Your task to perform on an android device: change text size in settings app Image 0: 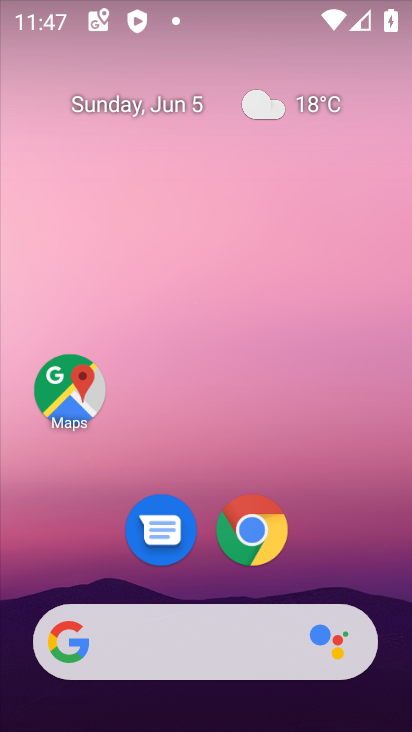
Step 0: drag from (330, 151) to (321, 4)
Your task to perform on an android device: change text size in settings app Image 1: 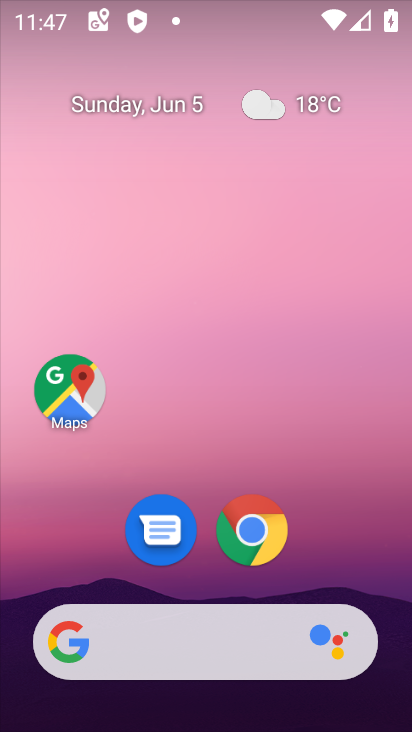
Step 1: drag from (334, 555) to (113, 6)
Your task to perform on an android device: change text size in settings app Image 2: 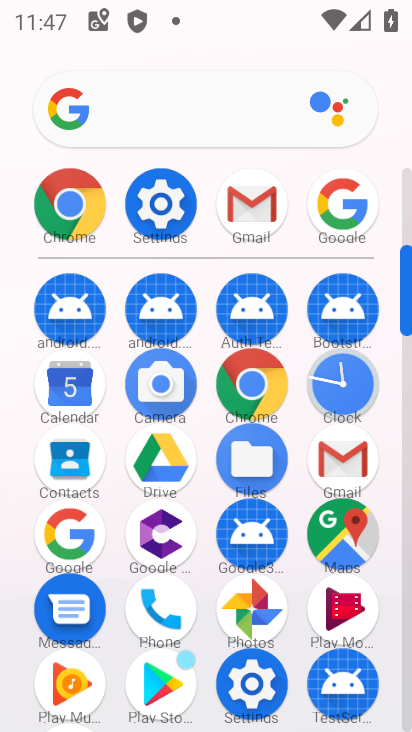
Step 2: click (169, 202)
Your task to perform on an android device: change text size in settings app Image 3: 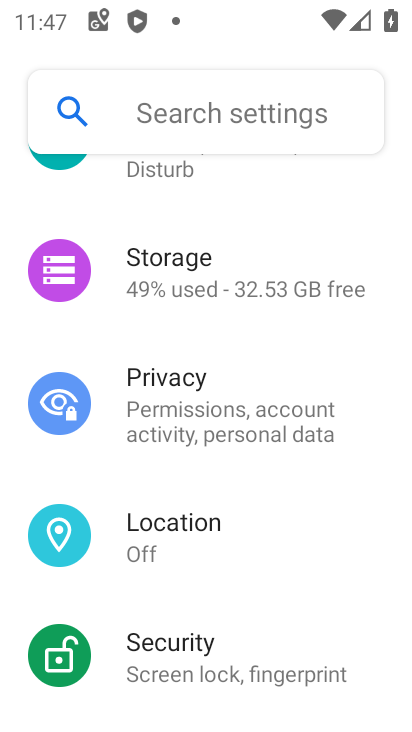
Step 3: drag from (261, 266) to (306, 646)
Your task to perform on an android device: change text size in settings app Image 4: 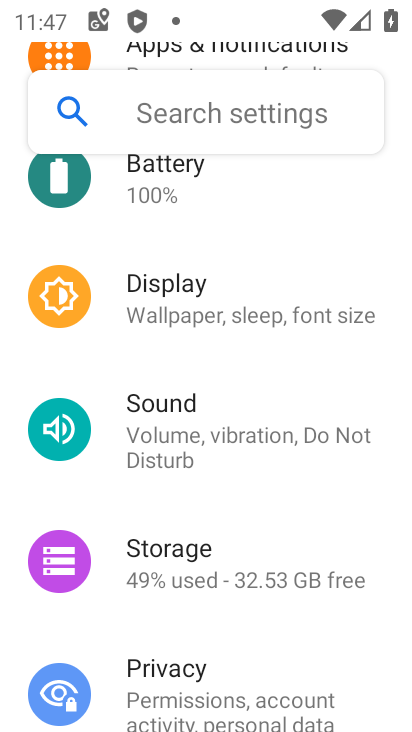
Step 4: drag from (318, 269) to (356, 654)
Your task to perform on an android device: change text size in settings app Image 5: 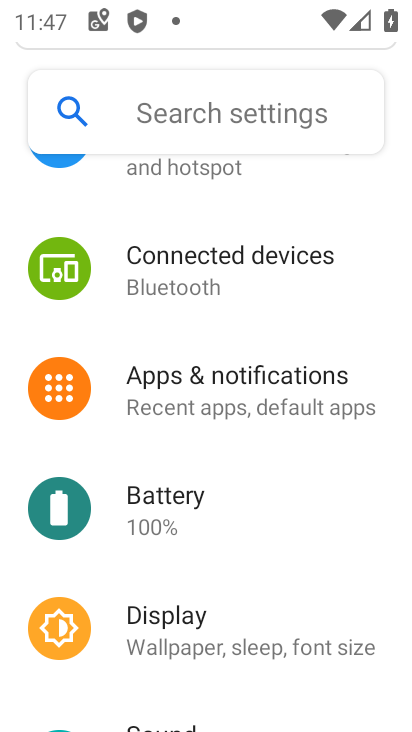
Step 5: click (296, 633)
Your task to perform on an android device: change text size in settings app Image 6: 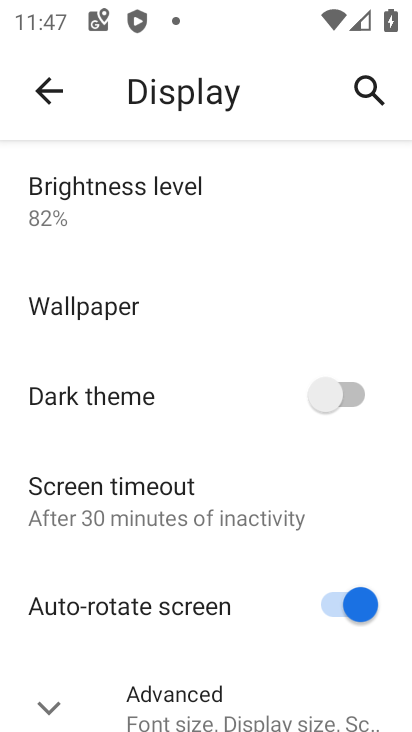
Step 6: drag from (262, 585) to (257, 189)
Your task to perform on an android device: change text size in settings app Image 7: 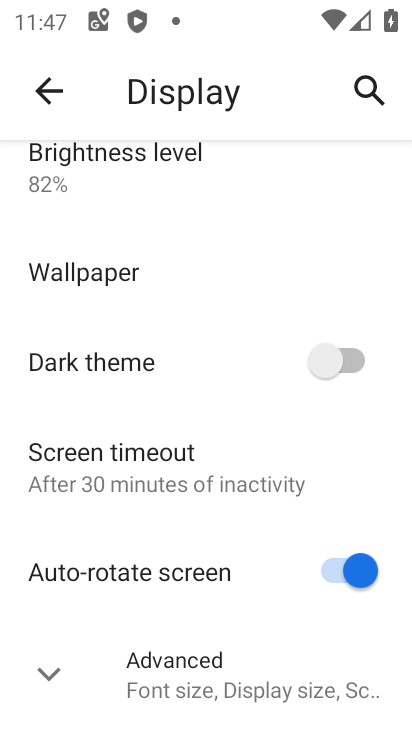
Step 7: click (283, 695)
Your task to perform on an android device: change text size in settings app Image 8: 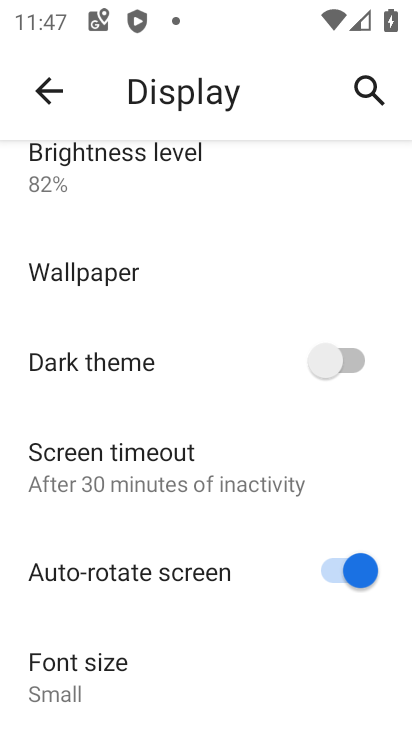
Step 8: drag from (128, 665) to (242, 206)
Your task to perform on an android device: change text size in settings app Image 9: 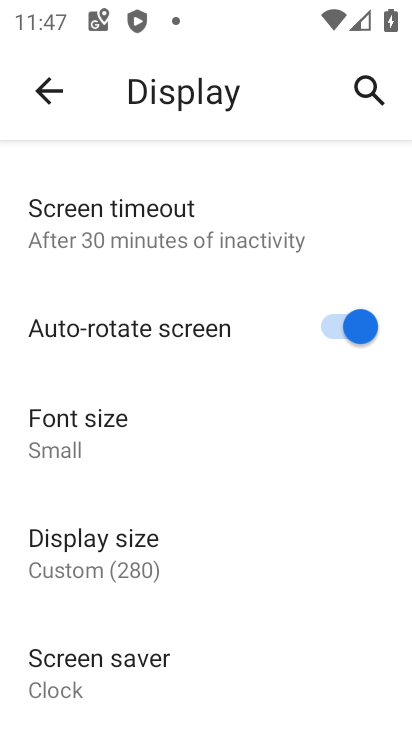
Step 9: click (115, 439)
Your task to perform on an android device: change text size in settings app Image 10: 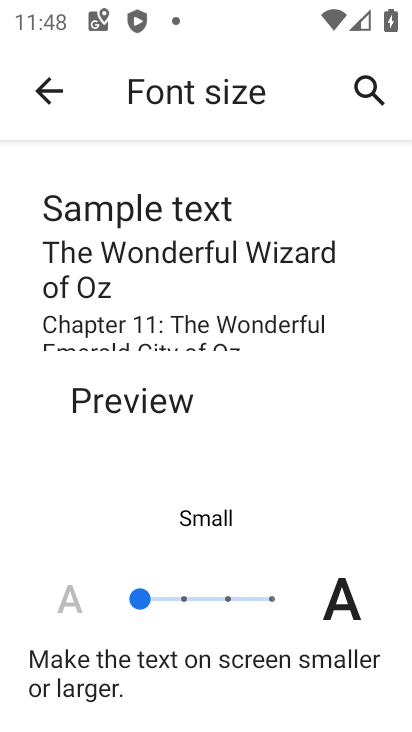
Step 10: click (187, 599)
Your task to perform on an android device: change text size in settings app Image 11: 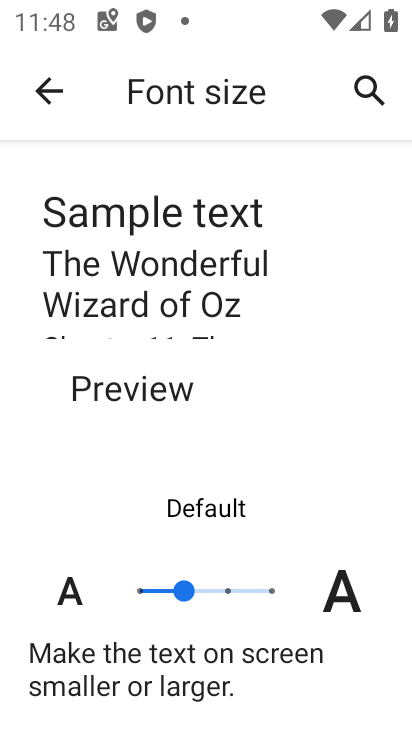
Step 11: task complete